Your task to perform on an android device: Open Android settings Image 0: 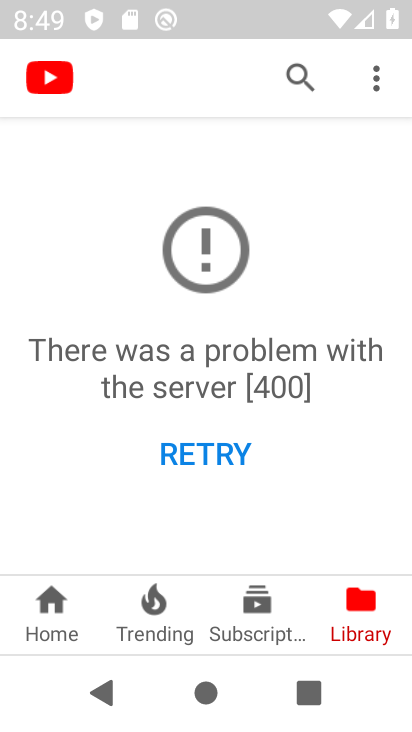
Step 0: press home button
Your task to perform on an android device: Open Android settings Image 1: 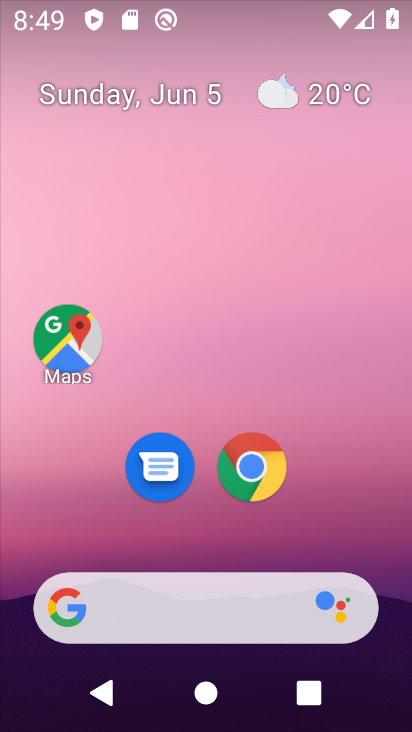
Step 1: drag from (327, 488) to (335, 56)
Your task to perform on an android device: Open Android settings Image 2: 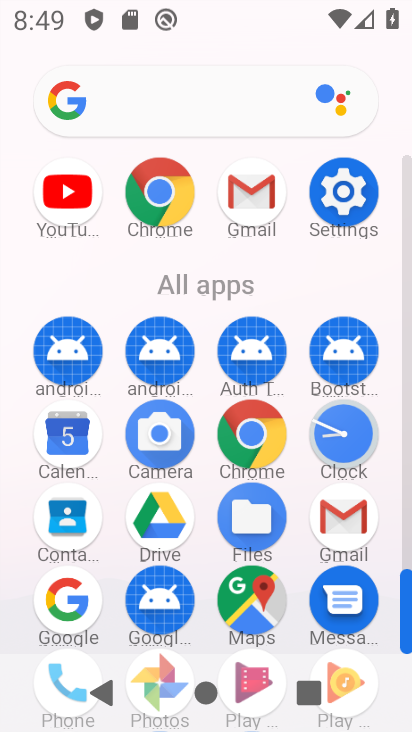
Step 2: click (336, 191)
Your task to perform on an android device: Open Android settings Image 3: 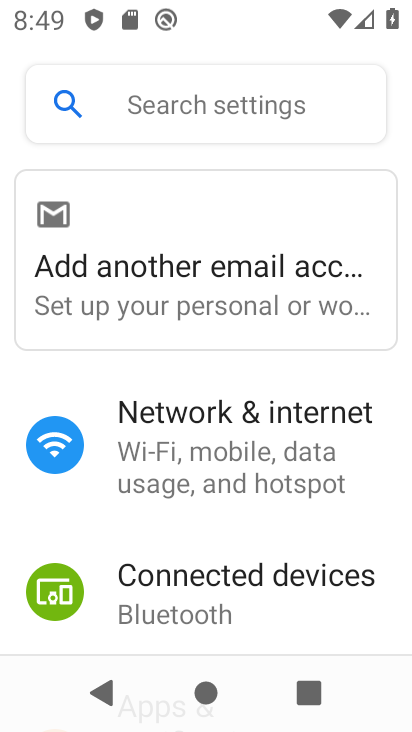
Step 3: drag from (233, 588) to (257, 245)
Your task to perform on an android device: Open Android settings Image 4: 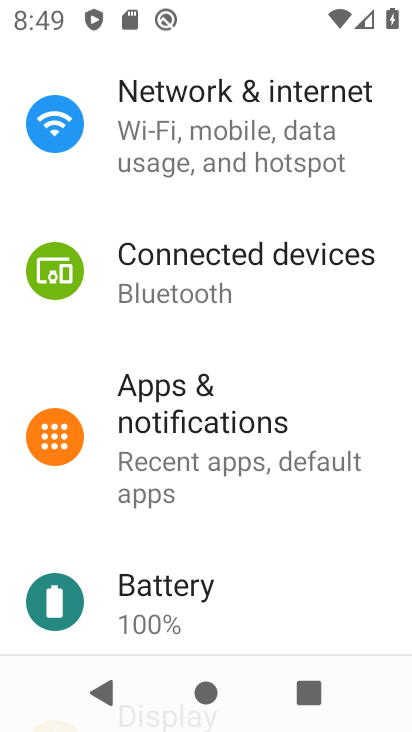
Step 4: drag from (200, 577) to (320, 54)
Your task to perform on an android device: Open Android settings Image 5: 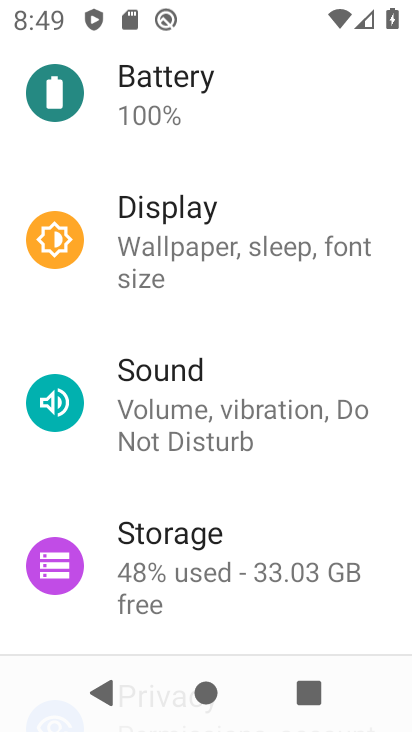
Step 5: drag from (259, 544) to (295, 54)
Your task to perform on an android device: Open Android settings Image 6: 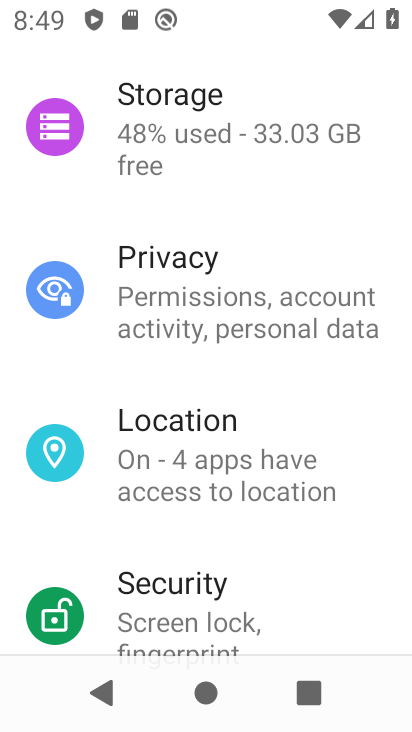
Step 6: drag from (251, 577) to (242, 41)
Your task to perform on an android device: Open Android settings Image 7: 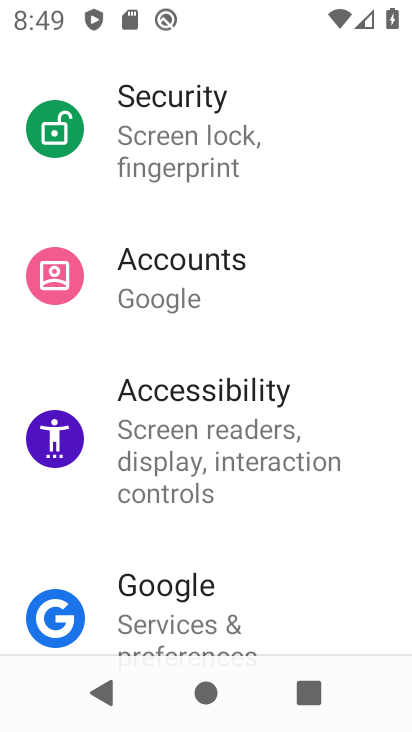
Step 7: drag from (173, 612) to (201, 82)
Your task to perform on an android device: Open Android settings Image 8: 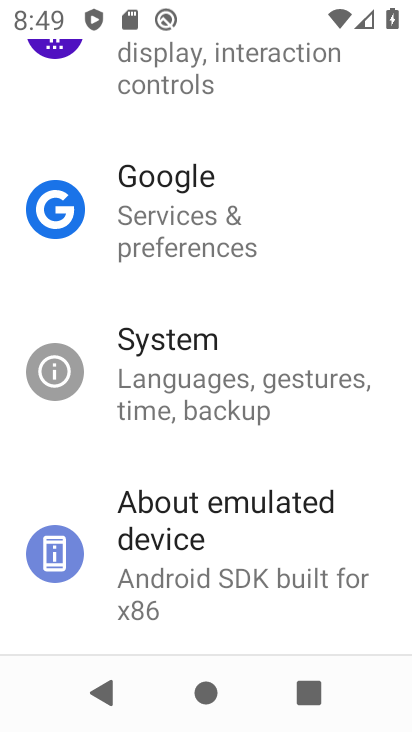
Step 8: click (134, 392)
Your task to perform on an android device: Open Android settings Image 9: 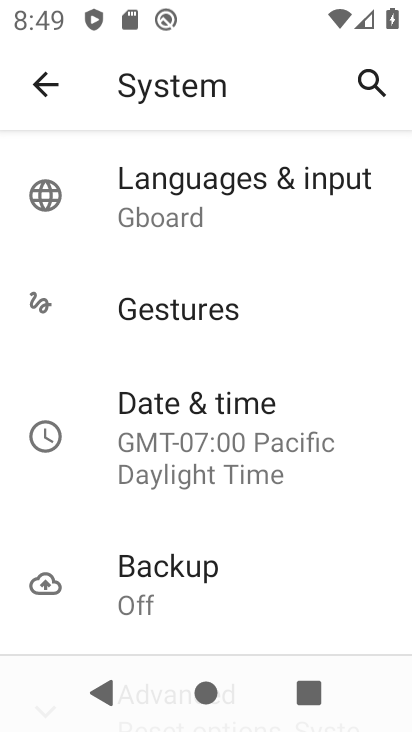
Step 9: task complete